Your task to perform on an android device: see sites visited before in the chrome app Image 0: 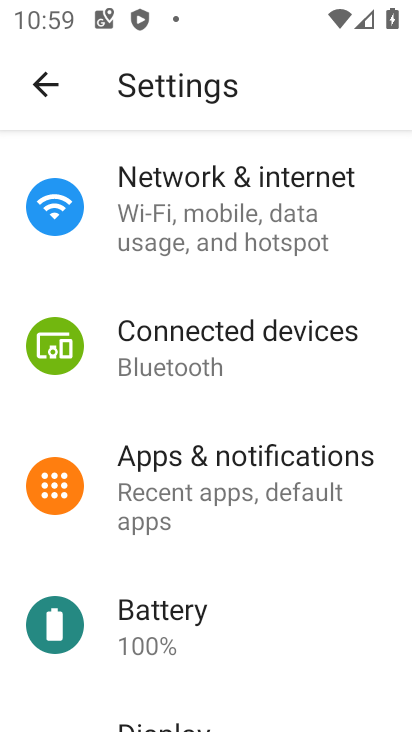
Step 0: press back button
Your task to perform on an android device: see sites visited before in the chrome app Image 1: 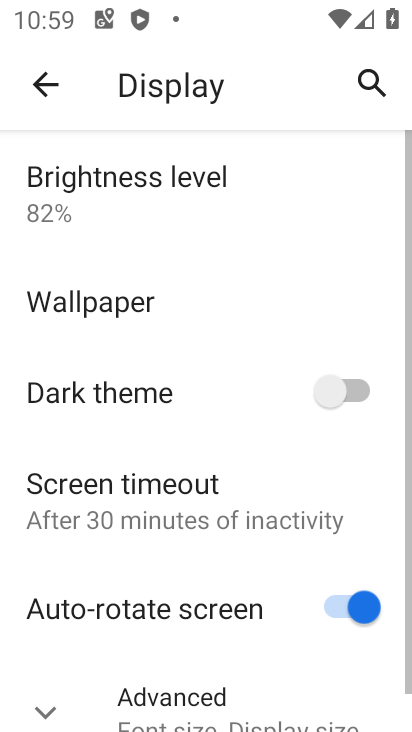
Step 1: press back button
Your task to perform on an android device: see sites visited before in the chrome app Image 2: 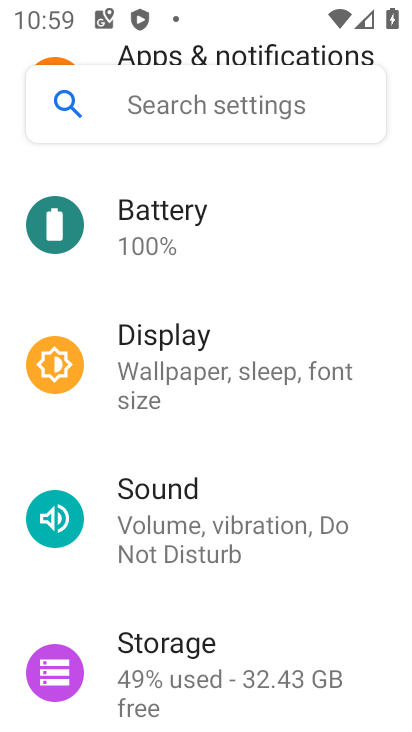
Step 2: press home button
Your task to perform on an android device: see sites visited before in the chrome app Image 3: 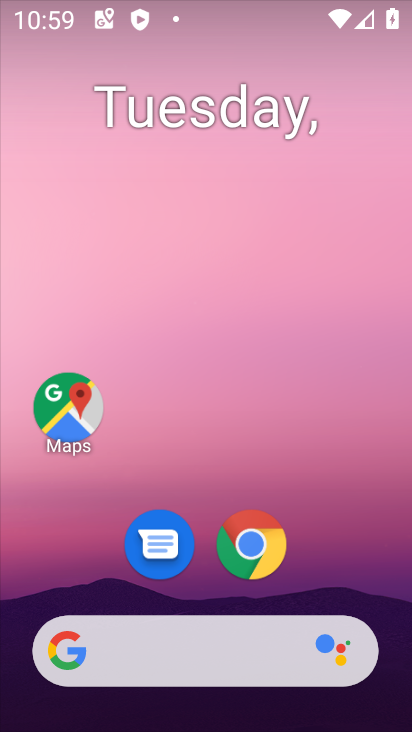
Step 3: drag from (387, 641) to (280, 123)
Your task to perform on an android device: see sites visited before in the chrome app Image 4: 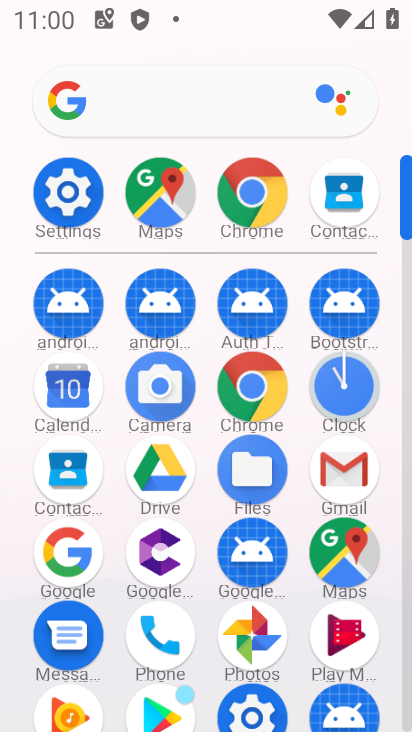
Step 4: click (256, 171)
Your task to perform on an android device: see sites visited before in the chrome app Image 5: 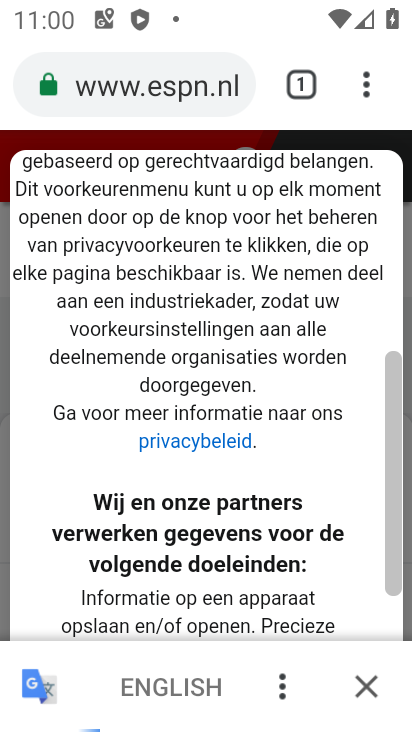
Step 5: press back button
Your task to perform on an android device: see sites visited before in the chrome app Image 6: 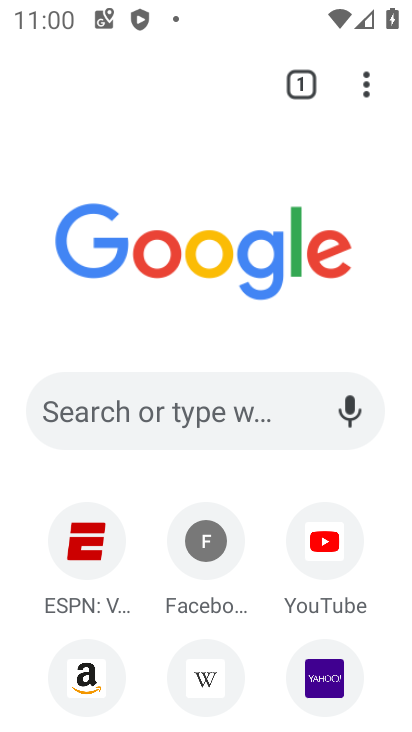
Step 6: click (363, 89)
Your task to perform on an android device: see sites visited before in the chrome app Image 7: 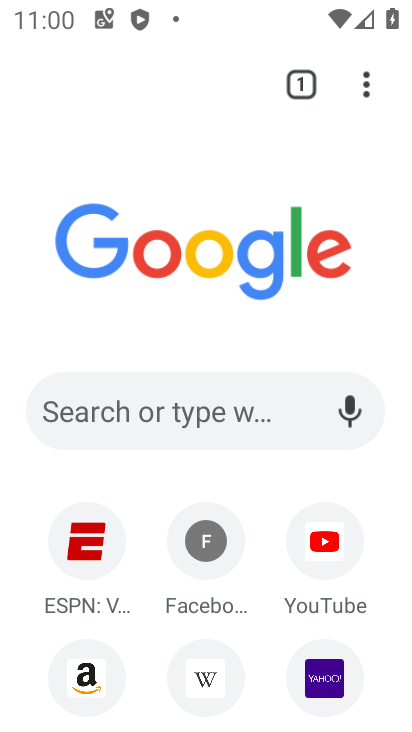
Step 7: click (367, 75)
Your task to perform on an android device: see sites visited before in the chrome app Image 8: 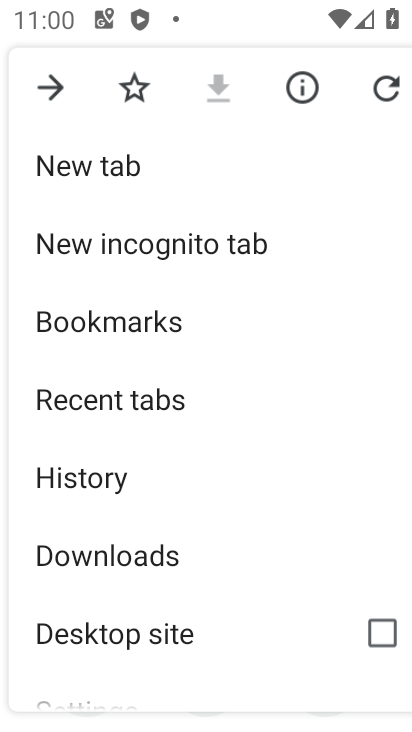
Step 8: click (135, 468)
Your task to perform on an android device: see sites visited before in the chrome app Image 9: 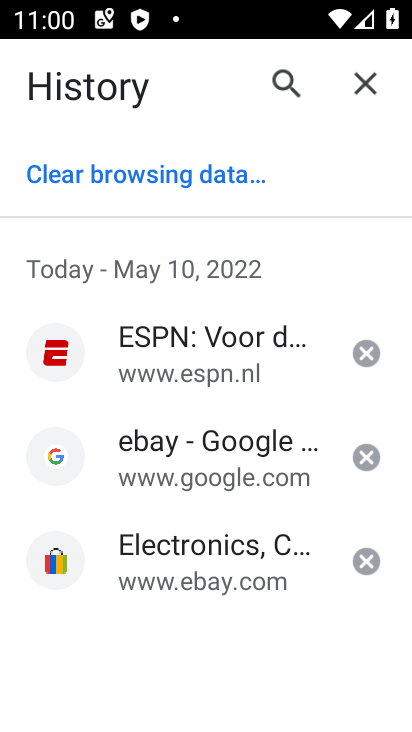
Step 9: click (193, 335)
Your task to perform on an android device: see sites visited before in the chrome app Image 10: 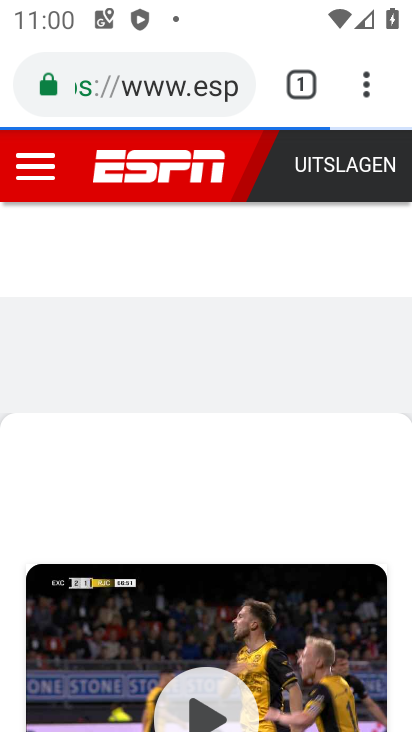
Step 10: task complete